Your task to perform on an android device: toggle translation in the chrome app Image 0: 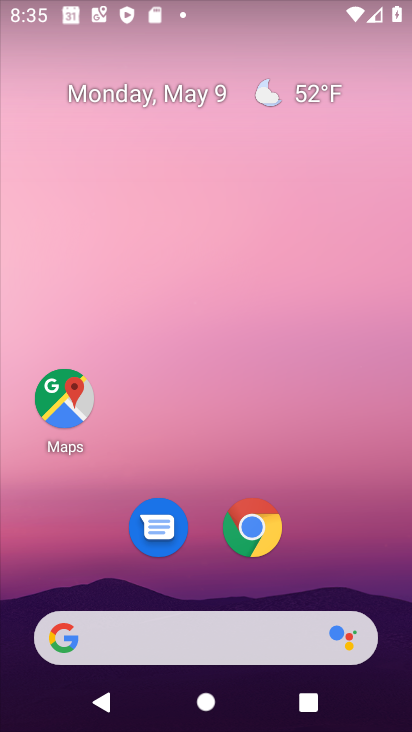
Step 0: click (256, 528)
Your task to perform on an android device: toggle translation in the chrome app Image 1: 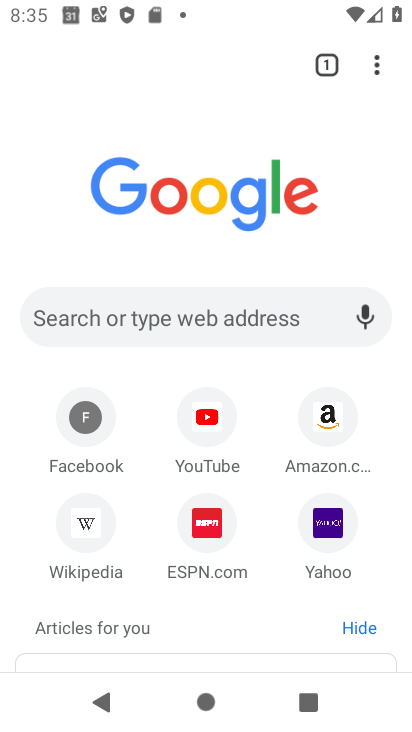
Step 1: click (367, 70)
Your task to perform on an android device: toggle translation in the chrome app Image 2: 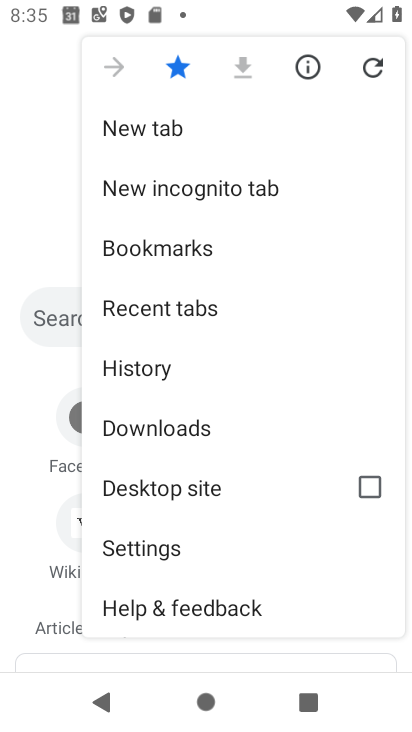
Step 2: click (167, 548)
Your task to perform on an android device: toggle translation in the chrome app Image 3: 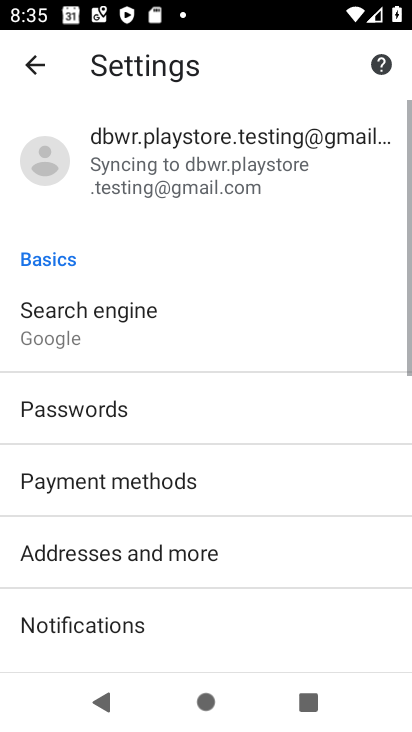
Step 3: drag from (204, 475) to (219, 94)
Your task to perform on an android device: toggle translation in the chrome app Image 4: 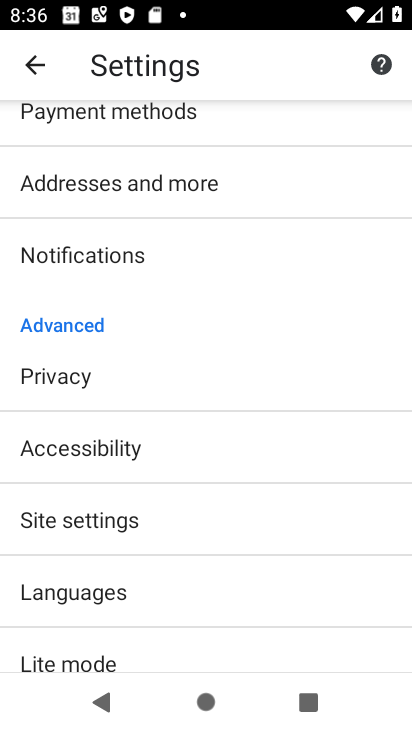
Step 4: click (101, 598)
Your task to perform on an android device: toggle translation in the chrome app Image 5: 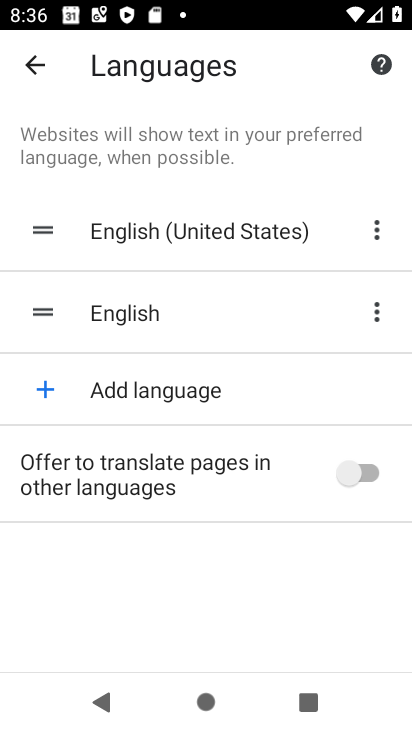
Step 5: click (360, 475)
Your task to perform on an android device: toggle translation in the chrome app Image 6: 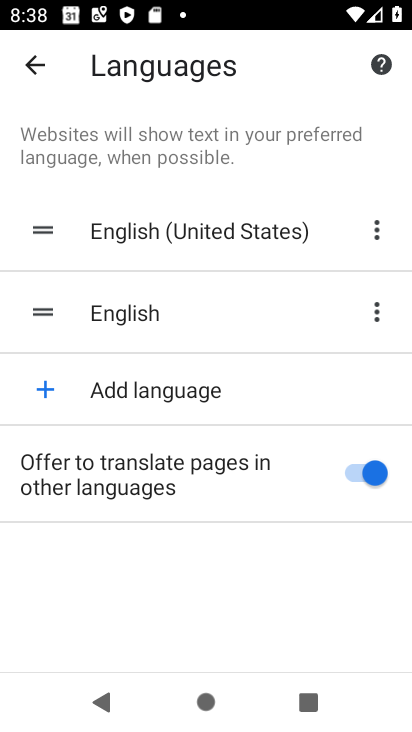
Step 6: task complete